Your task to perform on an android device: Find coffee shops on Maps Image 0: 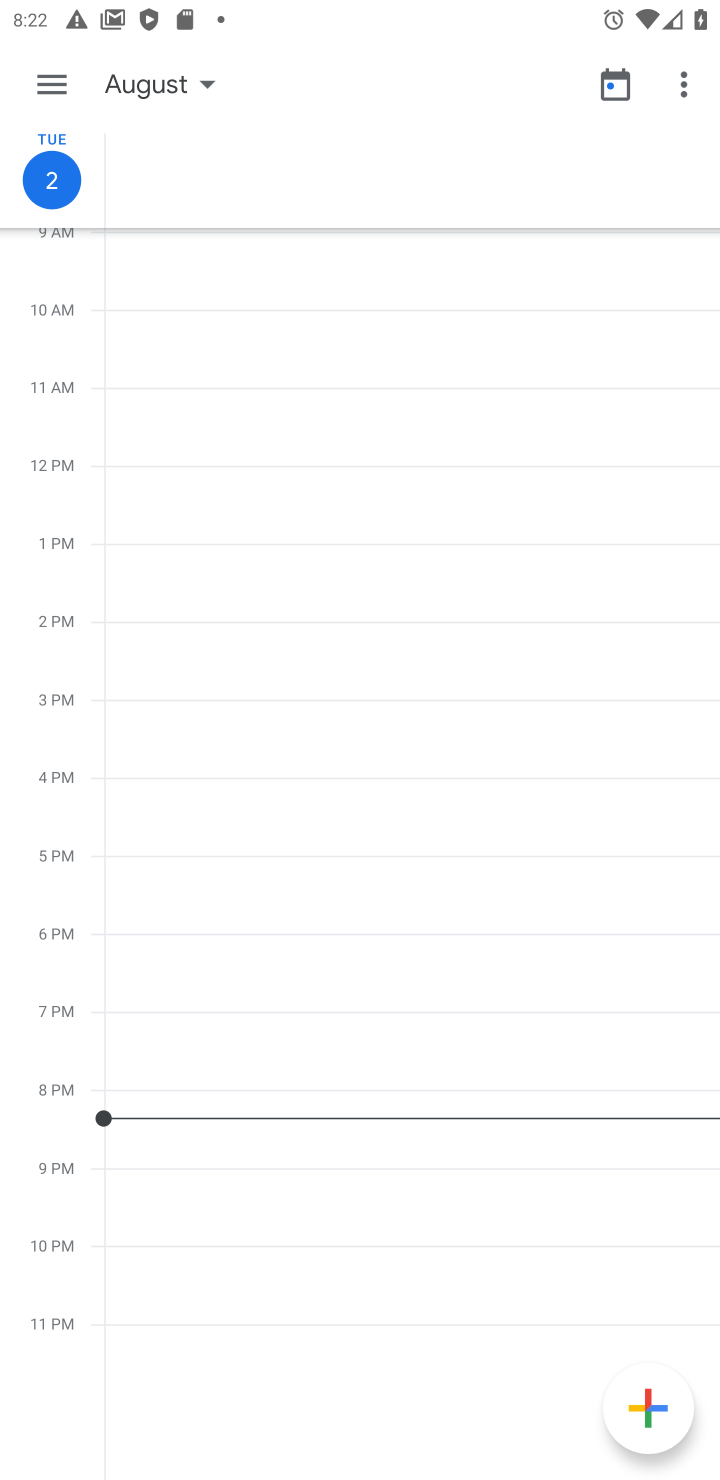
Step 0: press home button
Your task to perform on an android device: Find coffee shops on Maps Image 1: 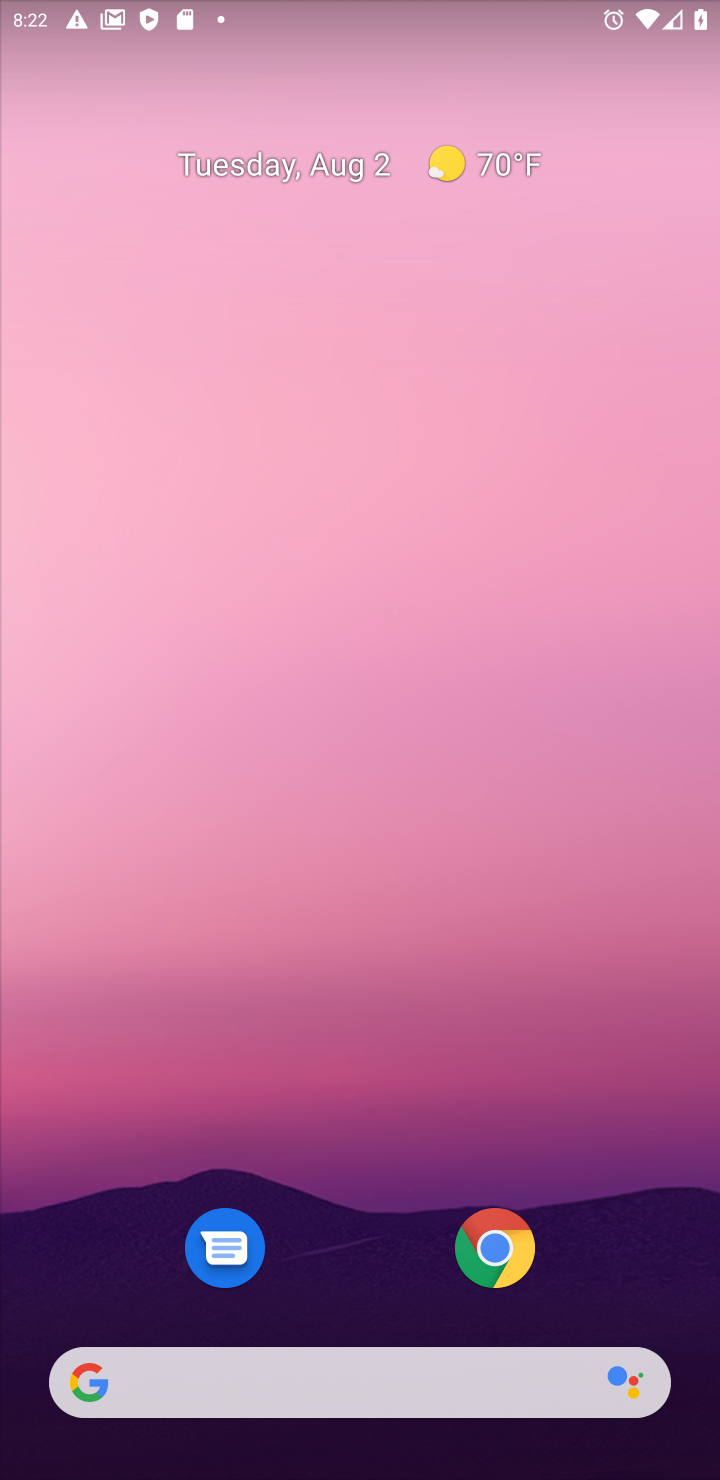
Step 1: drag from (415, 1269) to (655, 20)
Your task to perform on an android device: Find coffee shops on Maps Image 2: 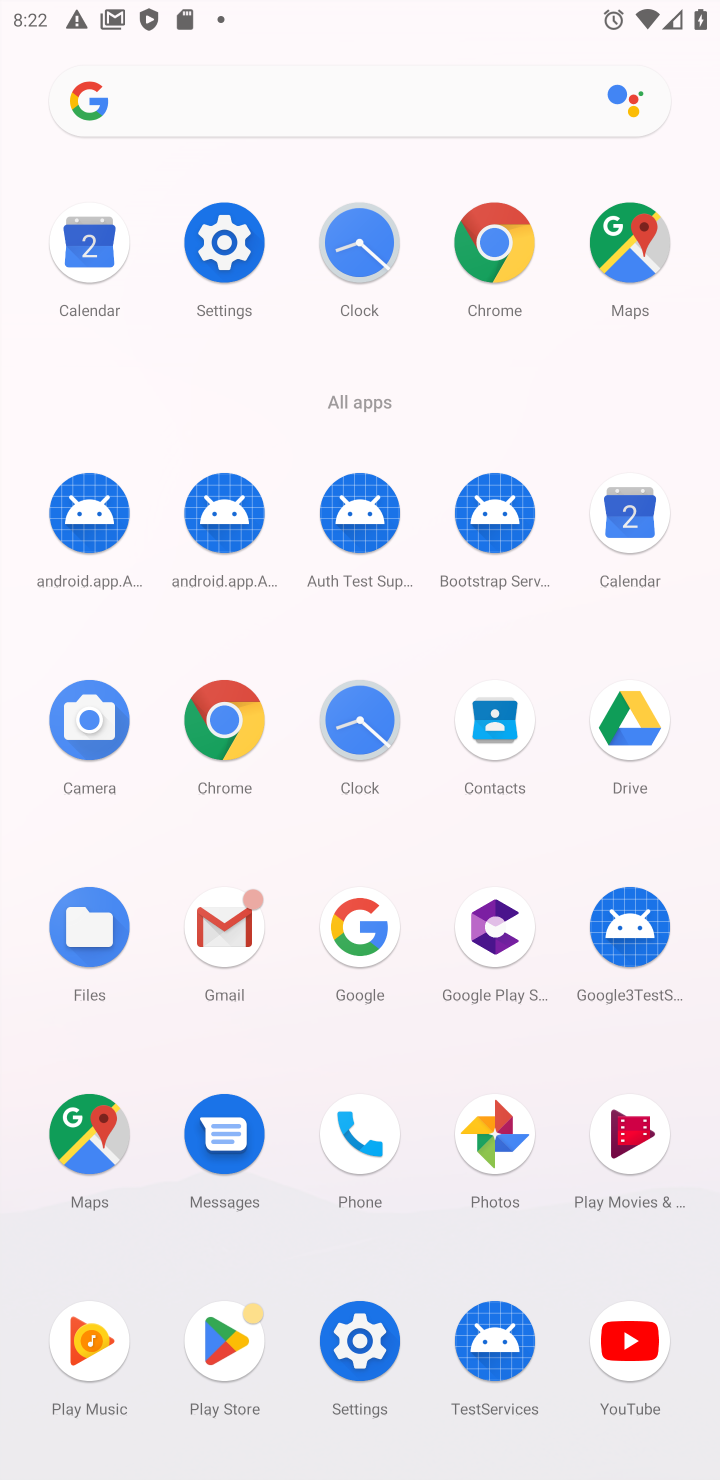
Step 2: click (88, 1121)
Your task to perform on an android device: Find coffee shops on Maps Image 3: 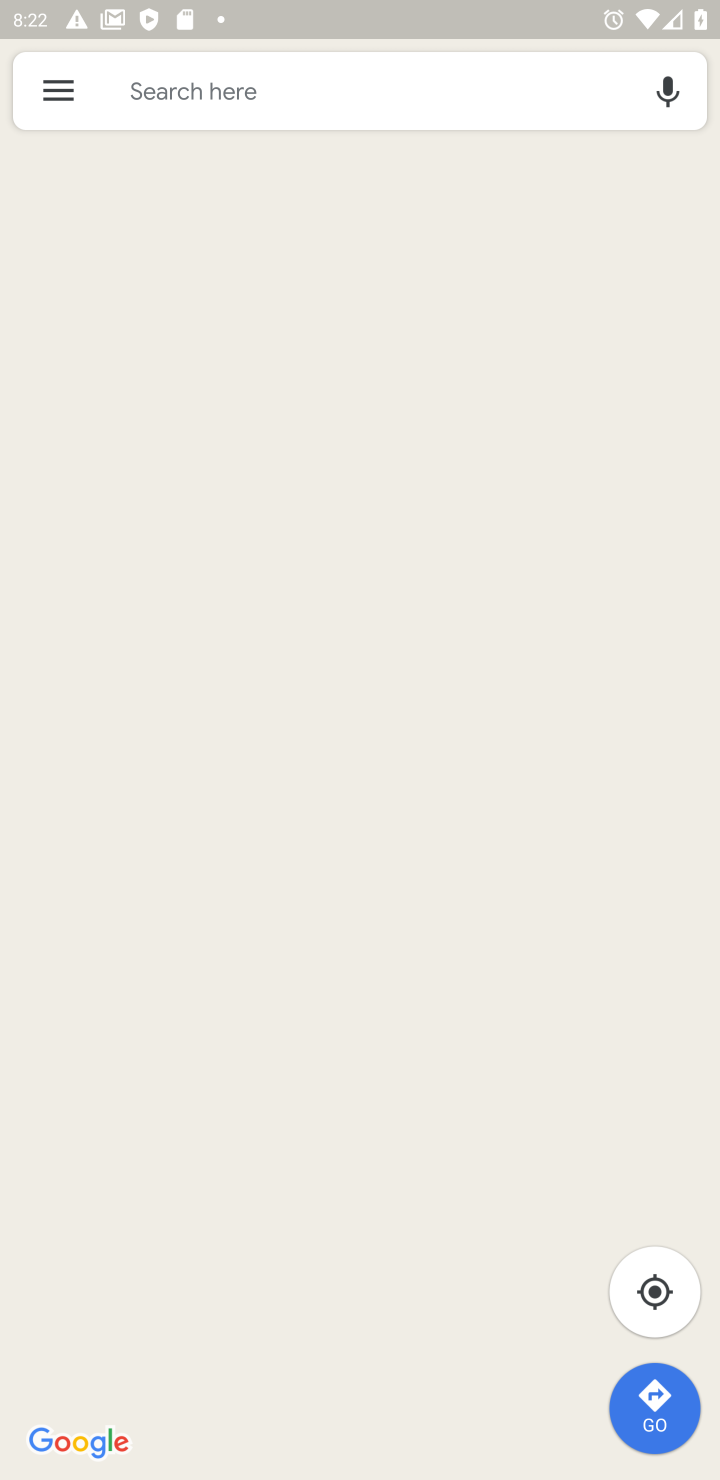
Step 3: click (272, 89)
Your task to perform on an android device: Find coffee shops on Maps Image 4: 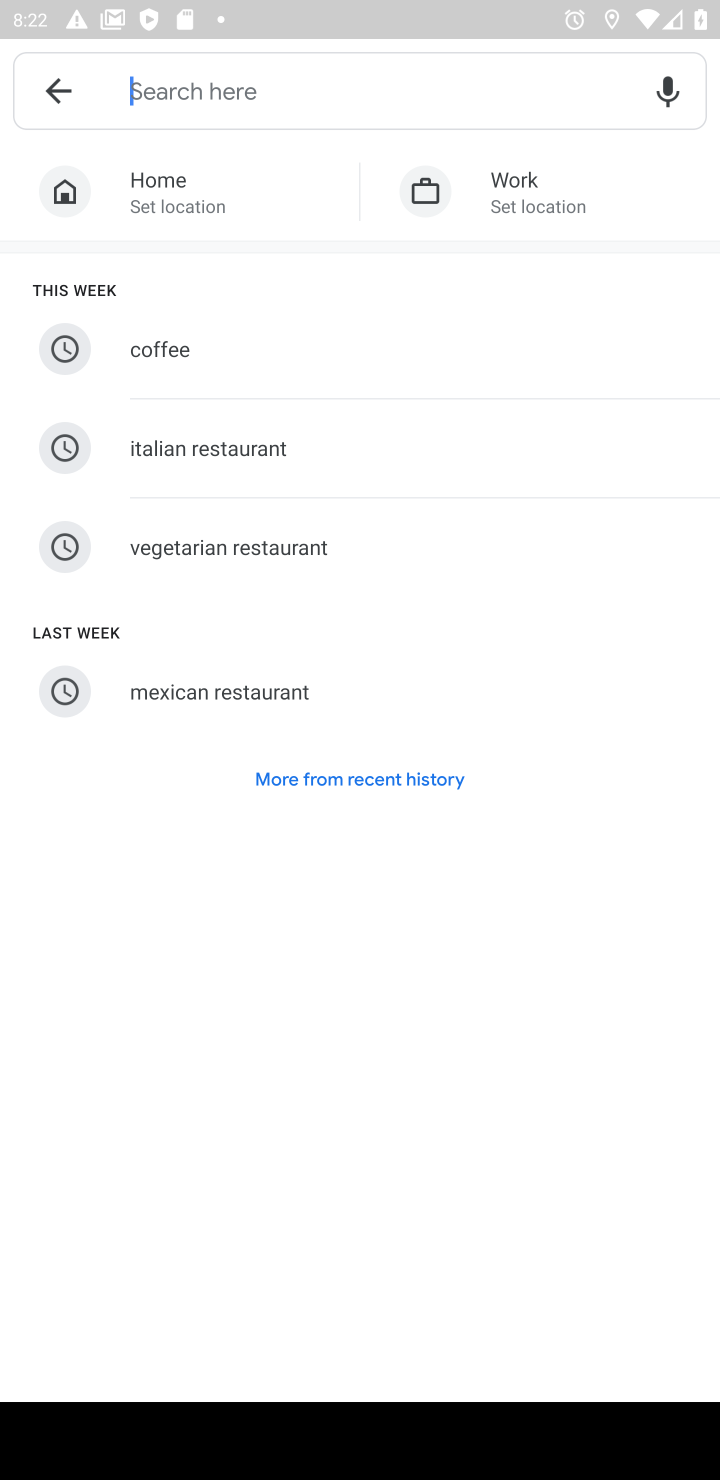
Step 4: type "coffee shop"
Your task to perform on an android device: Find coffee shops on Maps Image 5: 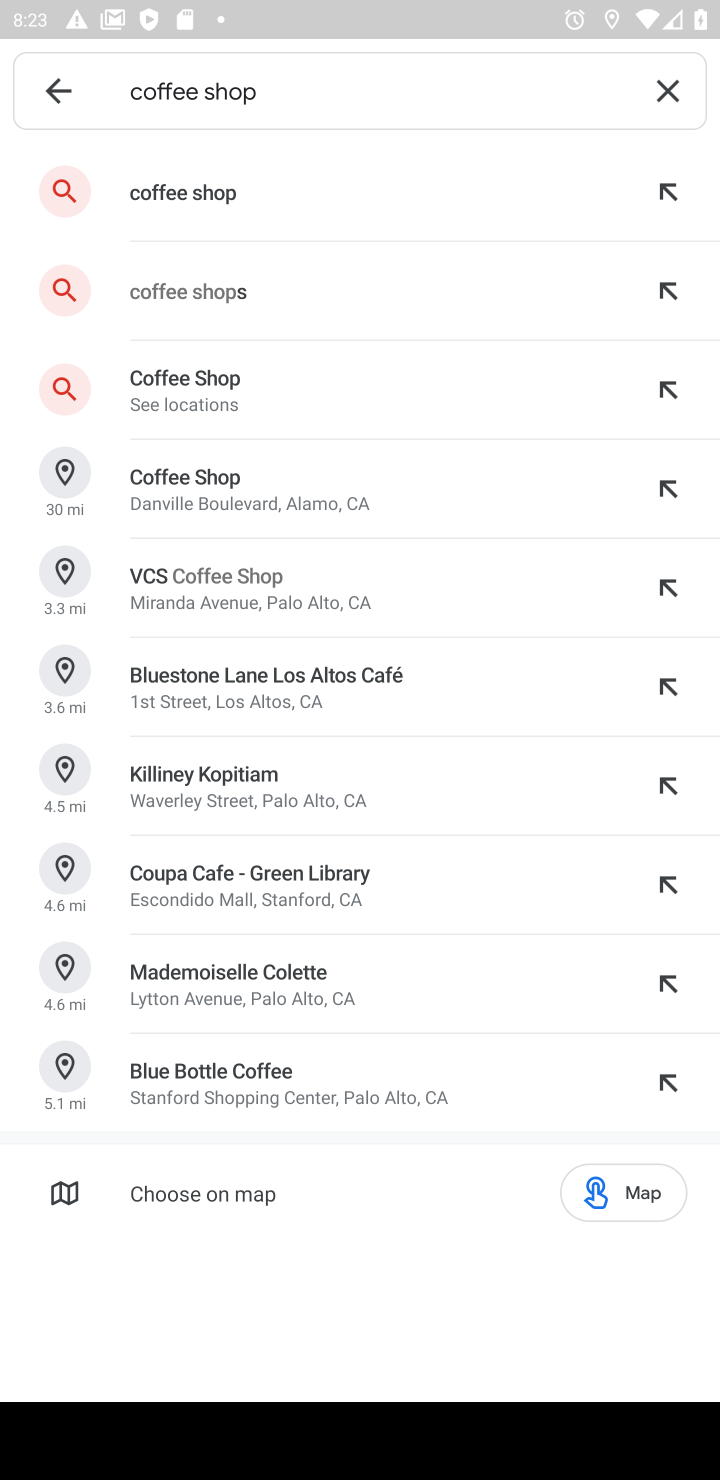
Step 5: click (200, 194)
Your task to perform on an android device: Find coffee shops on Maps Image 6: 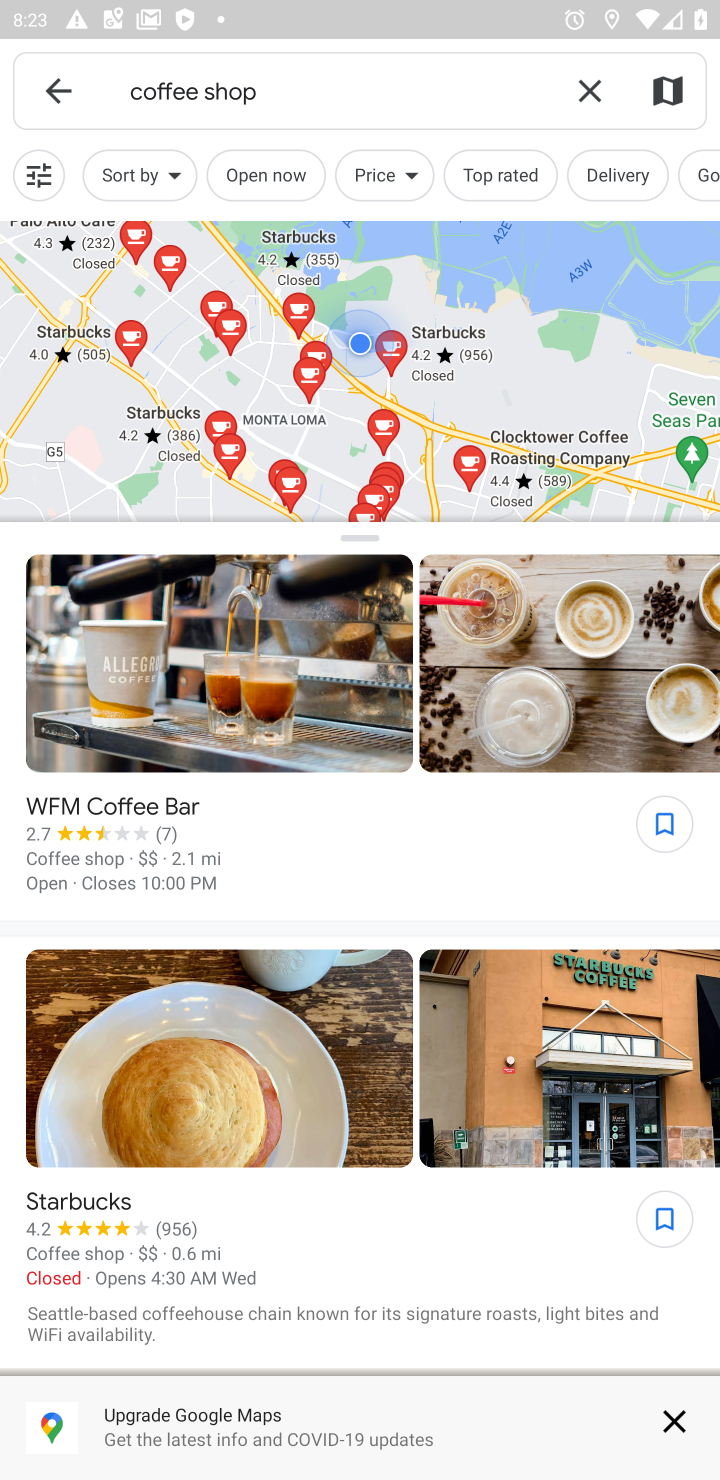
Step 6: task complete